Your task to perform on an android device: Search for sushi restaurants on Maps Image 0: 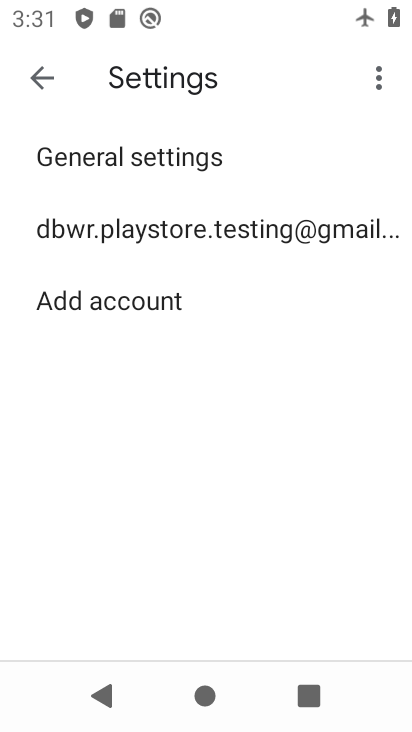
Step 0: press home button
Your task to perform on an android device: Search for sushi restaurants on Maps Image 1: 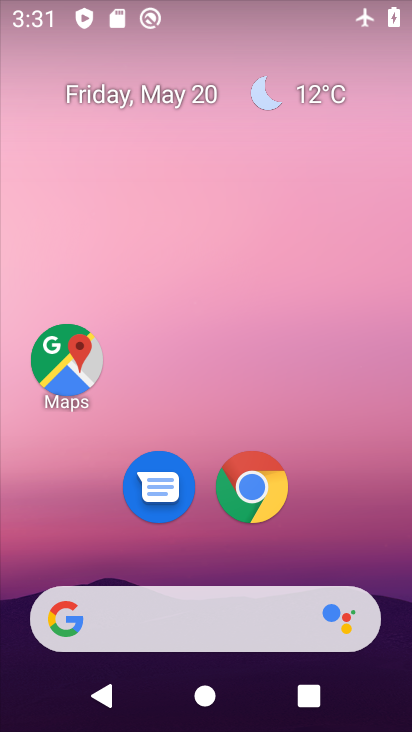
Step 1: drag from (309, 544) to (233, 109)
Your task to perform on an android device: Search for sushi restaurants on Maps Image 2: 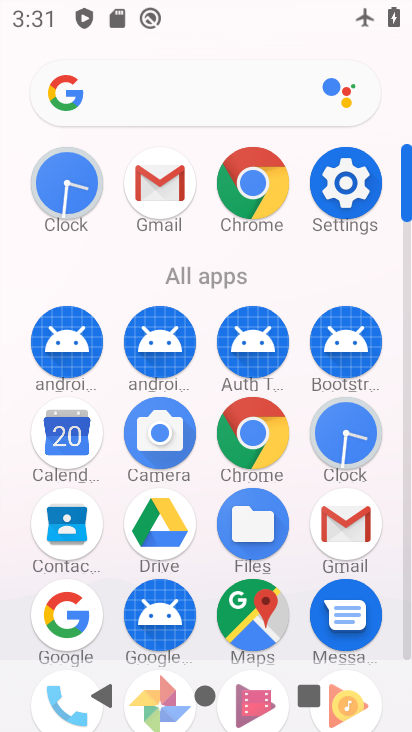
Step 2: click (253, 610)
Your task to perform on an android device: Search for sushi restaurants on Maps Image 3: 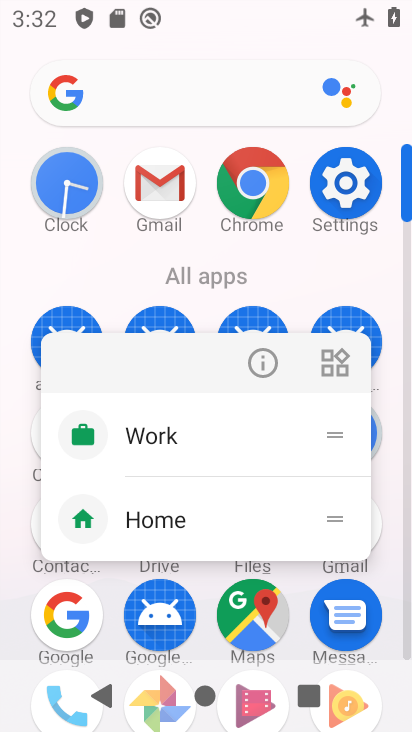
Step 3: click (252, 629)
Your task to perform on an android device: Search for sushi restaurants on Maps Image 4: 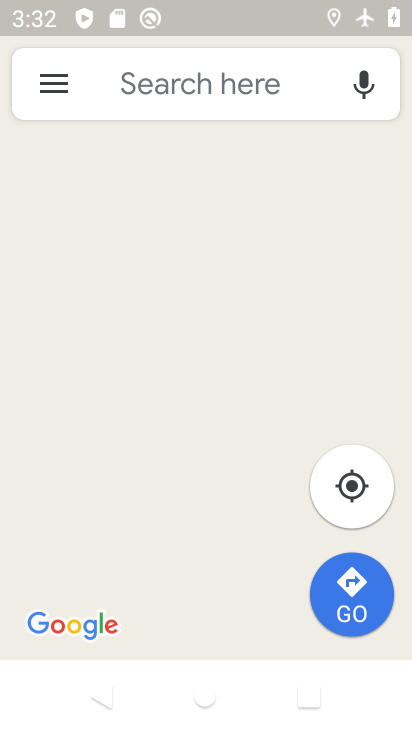
Step 4: click (216, 75)
Your task to perform on an android device: Search for sushi restaurants on Maps Image 5: 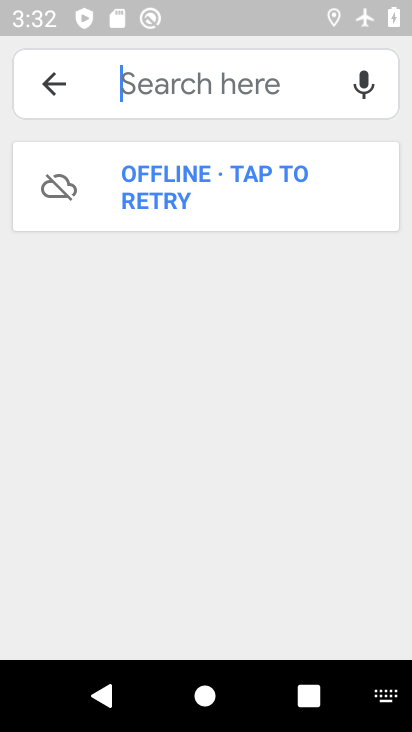
Step 5: task complete